Your task to perform on an android device: Open Reddit.com Image 0: 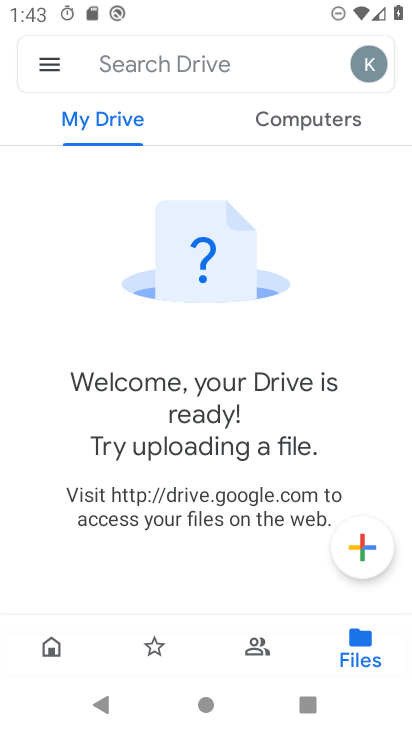
Step 0: press home button
Your task to perform on an android device: Open Reddit.com Image 1: 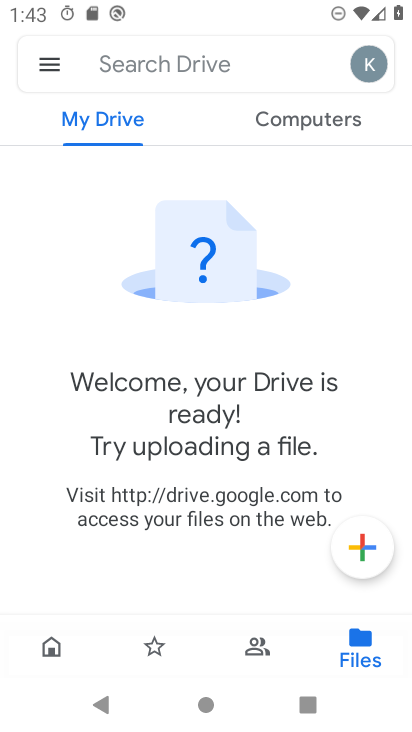
Step 1: press home button
Your task to perform on an android device: Open Reddit.com Image 2: 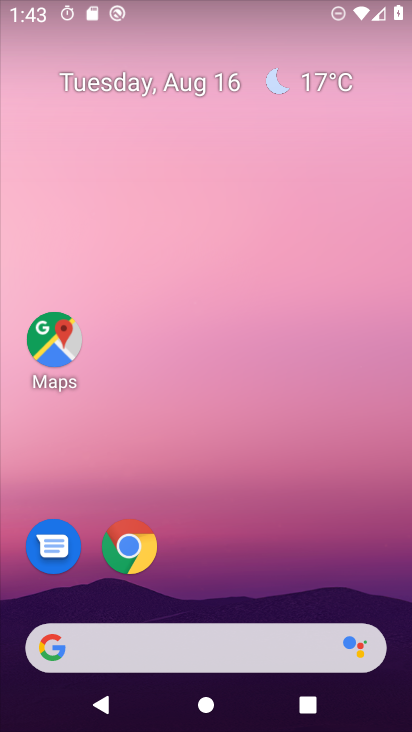
Step 2: click (124, 552)
Your task to perform on an android device: Open Reddit.com Image 3: 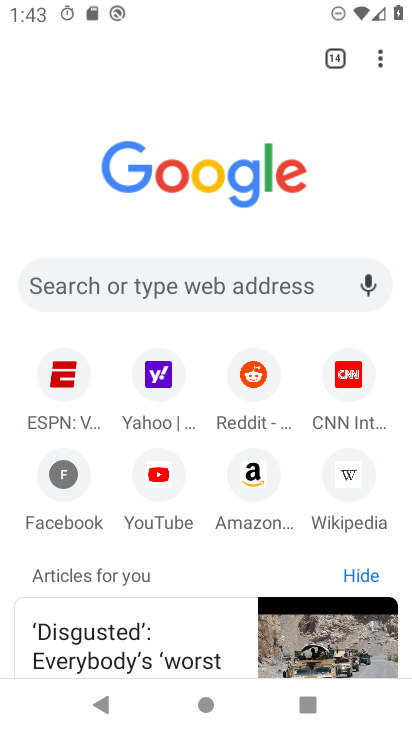
Step 3: click (250, 386)
Your task to perform on an android device: Open Reddit.com Image 4: 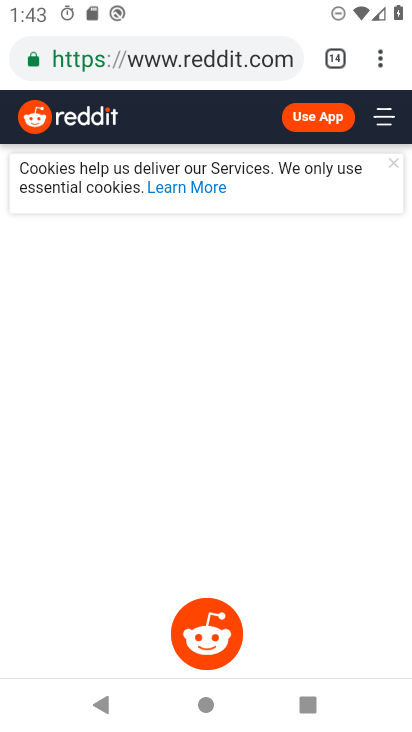
Step 4: task complete